Your task to perform on an android device: Go to accessibility settings Image 0: 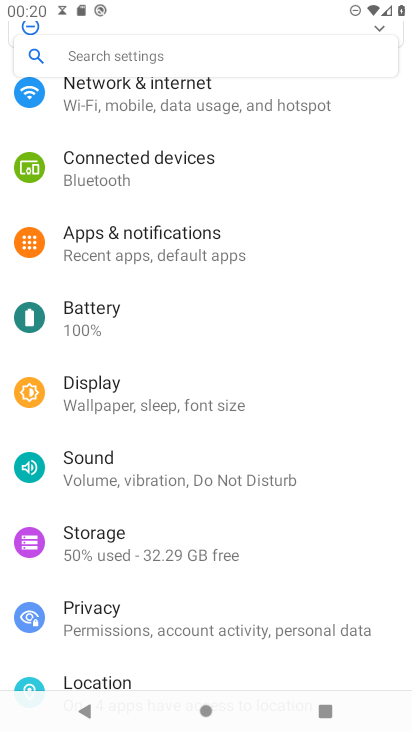
Step 0: press home button
Your task to perform on an android device: Go to accessibility settings Image 1: 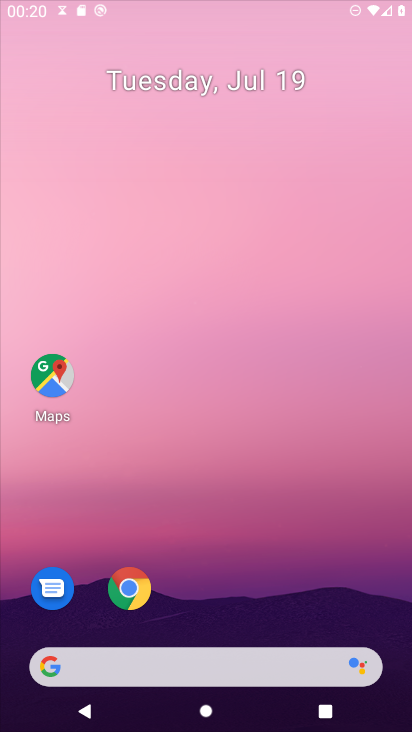
Step 1: drag from (290, 560) to (289, 57)
Your task to perform on an android device: Go to accessibility settings Image 2: 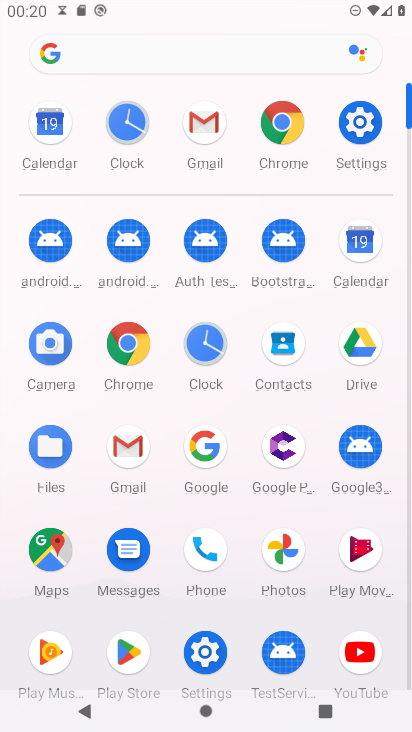
Step 2: click (362, 127)
Your task to perform on an android device: Go to accessibility settings Image 3: 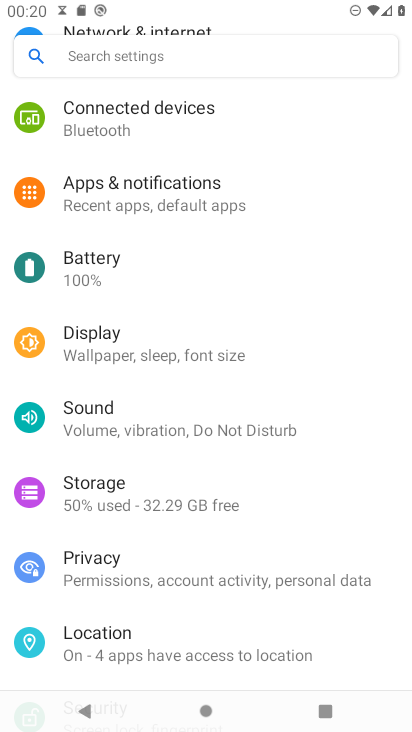
Step 3: drag from (186, 463) to (250, 205)
Your task to perform on an android device: Go to accessibility settings Image 4: 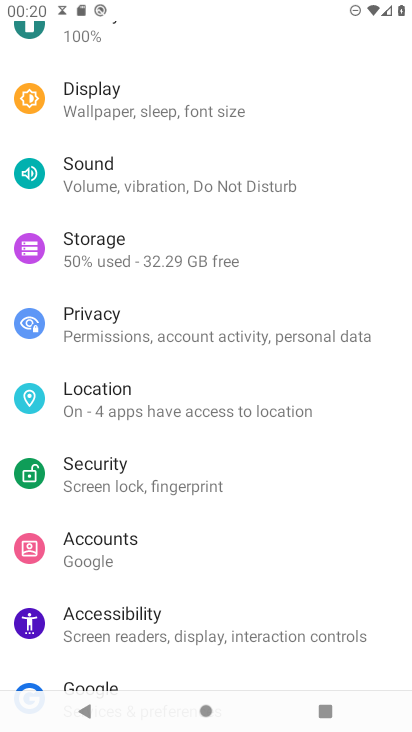
Step 4: click (132, 616)
Your task to perform on an android device: Go to accessibility settings Image 5: 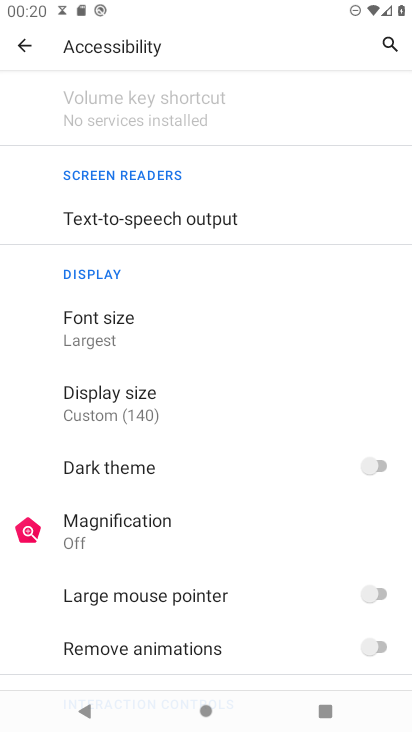
Step 5: task complete